Your task to perform on an android device: all mails in gmail Image 0: 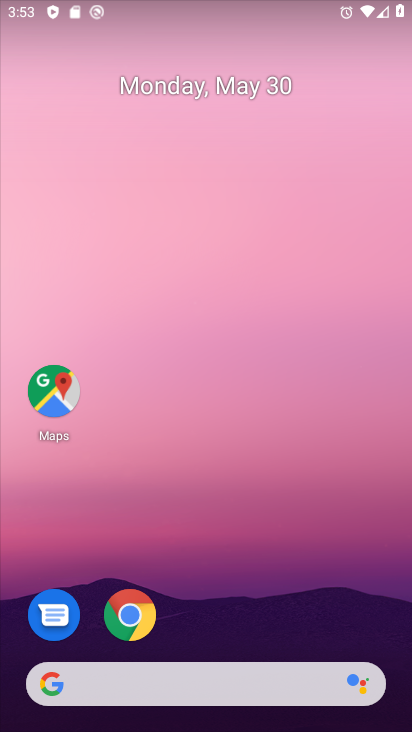
Step 0: drag from (235, 624) to (251, 54)
Your task to perform on an android device: all mails in gmail Image 1: 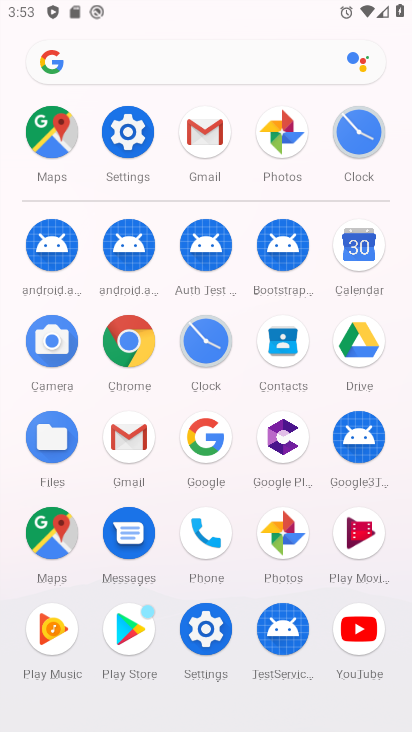
Step 1: click (215, 133)
Your task to perform on an android device: all mails in gmail Image 2: 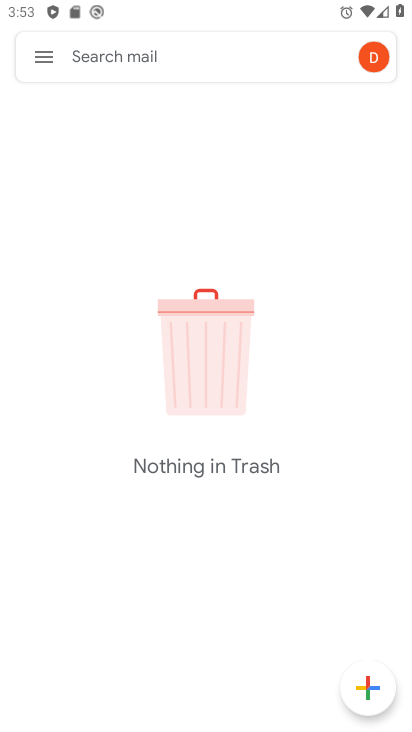
Step 2: click (42, 58)
Your task to perform on an android device: all mails in gmail Image 3: 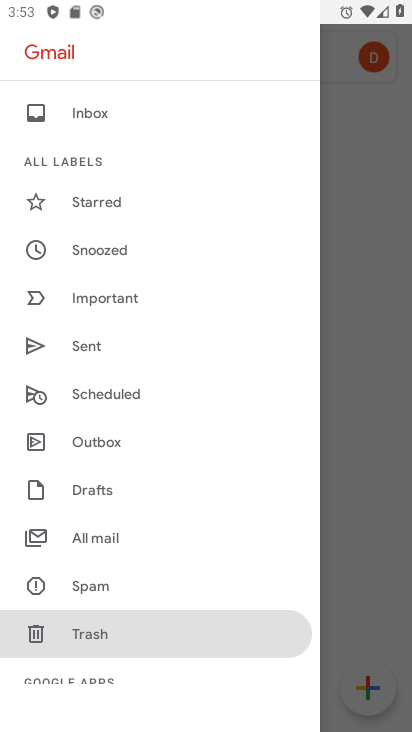
Step 3: click (105, 531)
Your task to perform on an android device: all mails in gmail Image 4: 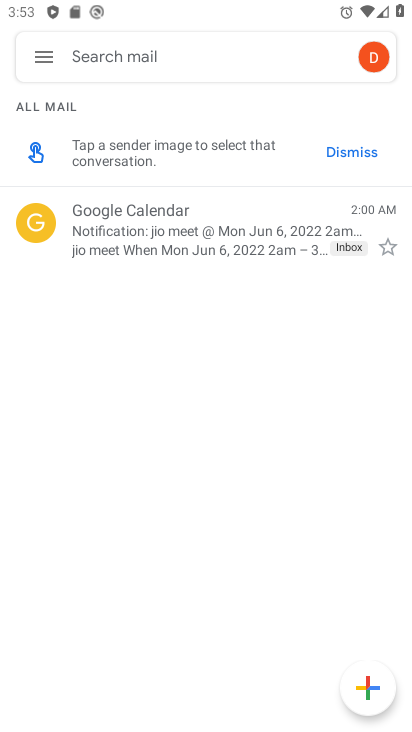
Step 4: task complete